Your task to perform on an android device: What is the recent news? Image 0: 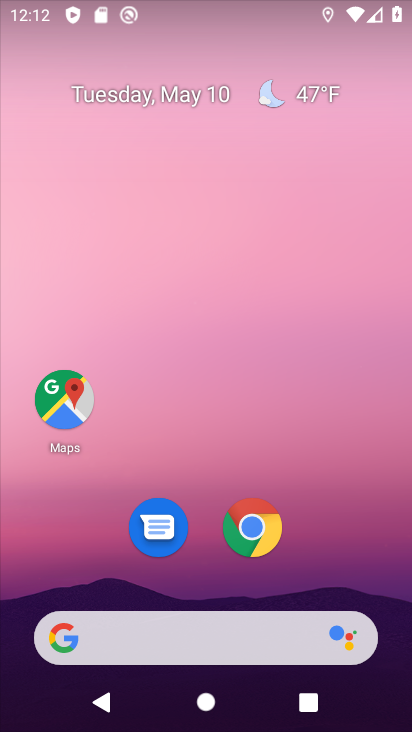
Step 0: press home button
Your task to perform on an android device: What is the recent news? Image 1: 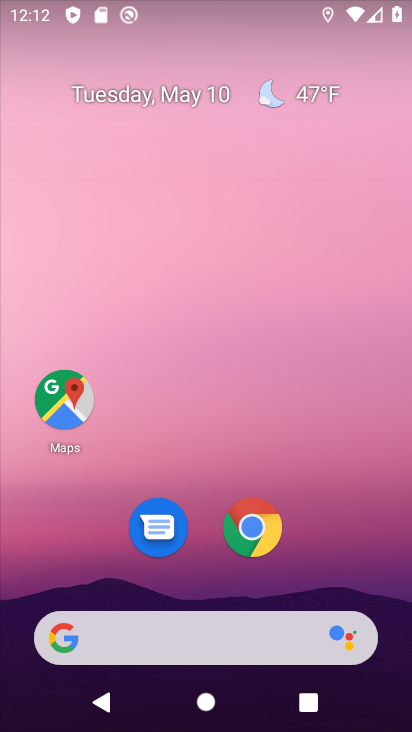
Step 1: drag from (384, 567) to (328, 172)
Your task to perform on an android device: What is the recent news? Image 2: 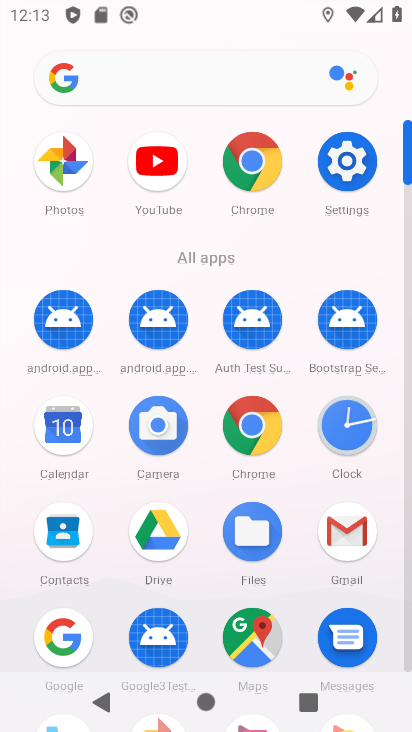
Step 2: click (252, 165)
Your task to perform on an android device: What is the recent news? Image 3: 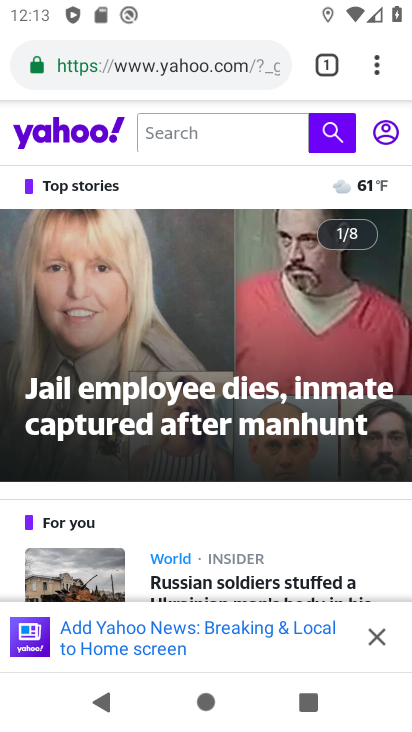
Step 3: click (167, 75)
Your task to perform on an android device: What is the recent news? Image 4: 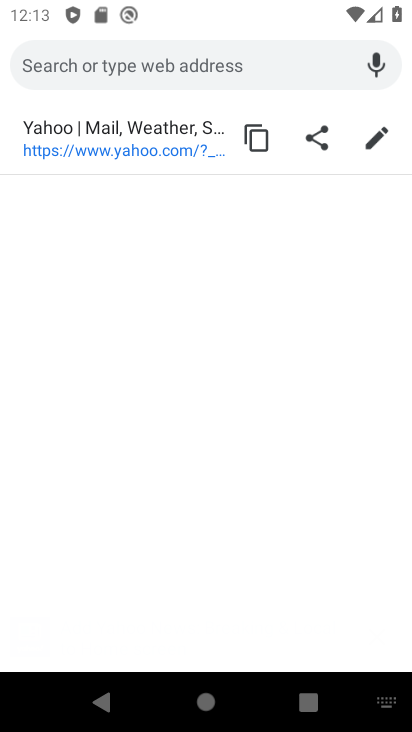
Step 4: type "recent news"
Your task to perform on an android device: What is the recent news? Image 5: 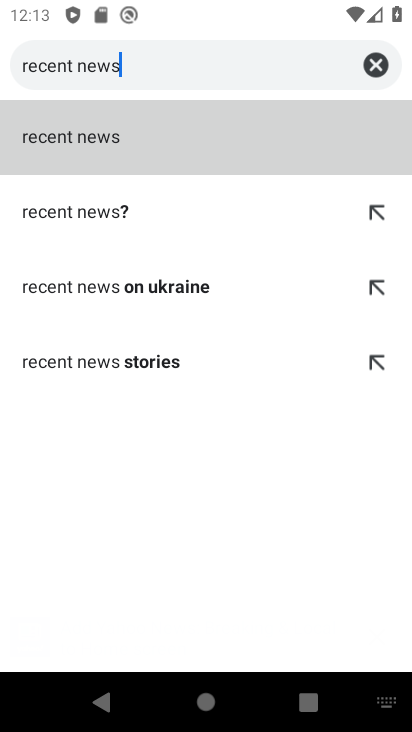
Step 5: click (88, 149)
Your task to perform on an android device: What is the recent news? Image 6: 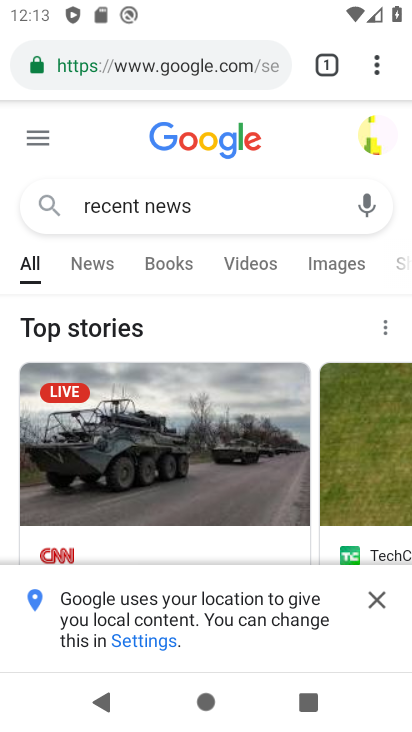
Step 6: drag from (105, 490) to (160, 228)
Your task to perform on an android device: What is the recent news? Image 7: 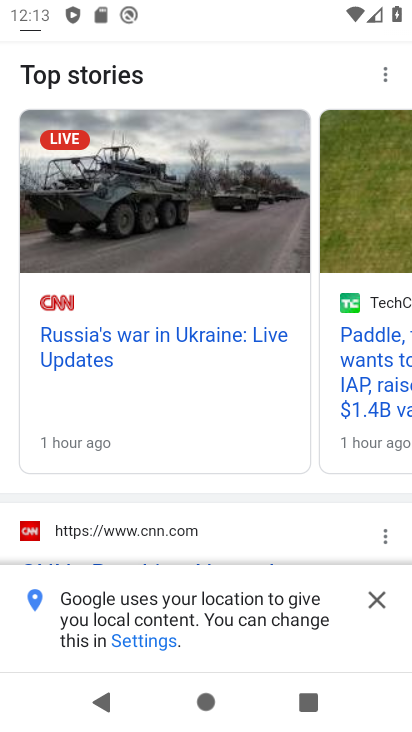
Step 7: drag from (163, 506) to (196, 257)
Your task to perform on an android device: What is the recent news? Image 8: 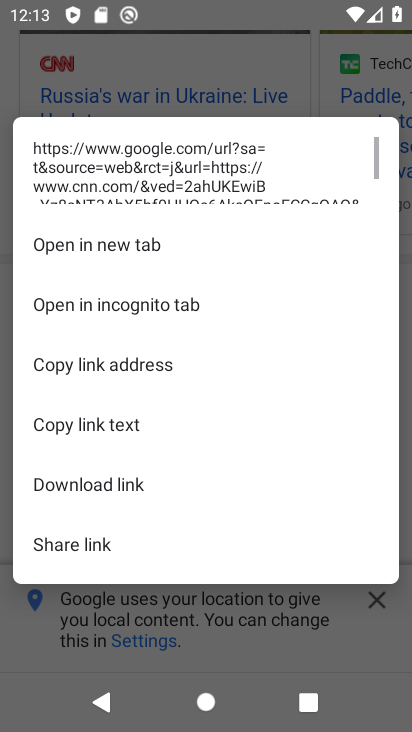
Step 8: drag from (184, 541) to (226, 272)
Your task to perform on an android device: What is the recent news? Image 9: 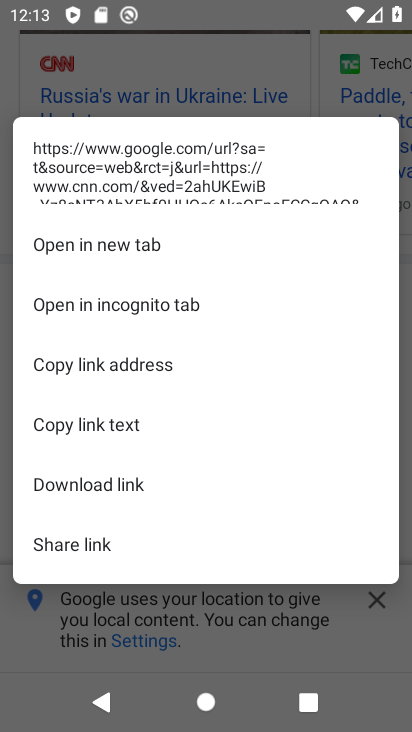
Step 9: click (114, 635)
Your task to perform on an android device: What is the recent news? Image 10: 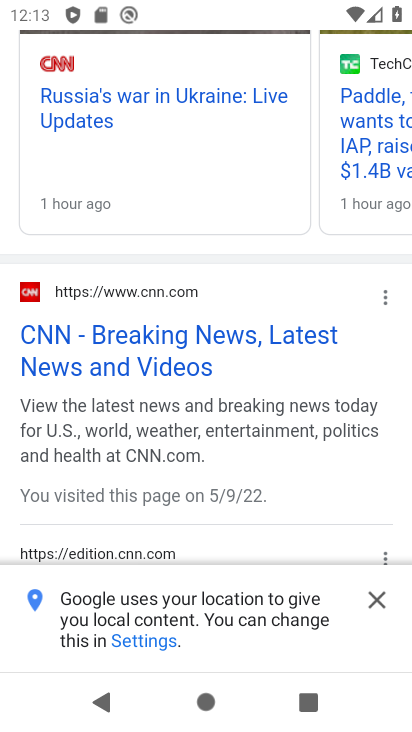
Step 10: task complete